Your task to perform on an android device: toggle priority inbox in the gmail app Image 0: 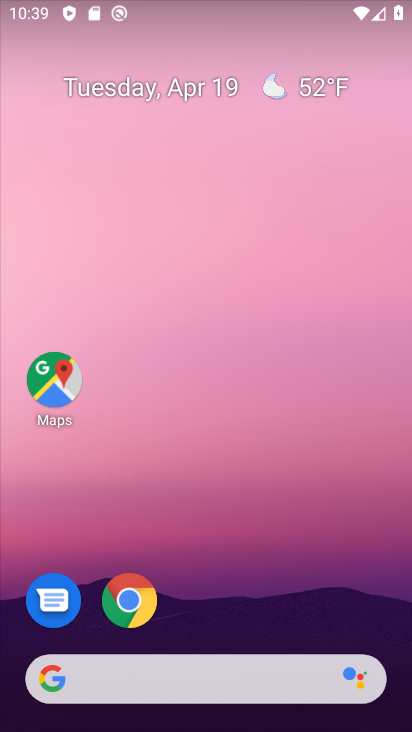
Step 0: drag from (196, 630) to (248, 98)
Your task to perform on an android device: toggle priority inbox in the gmail app Image 1: 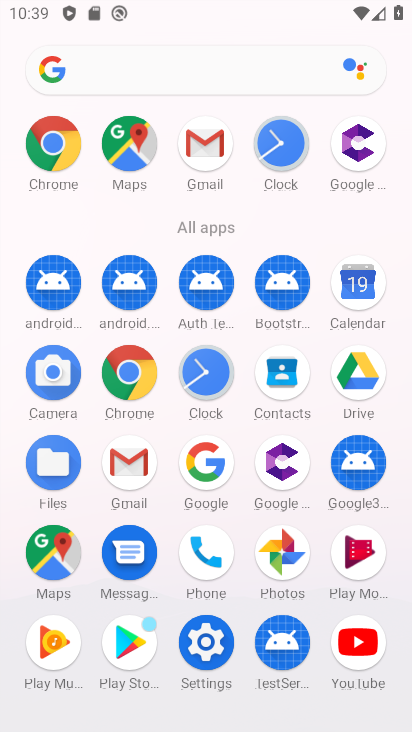
Step 1: click (121, 460)
Your task to perform on an android device: toggle priority inbox in the gmail app Image 2: 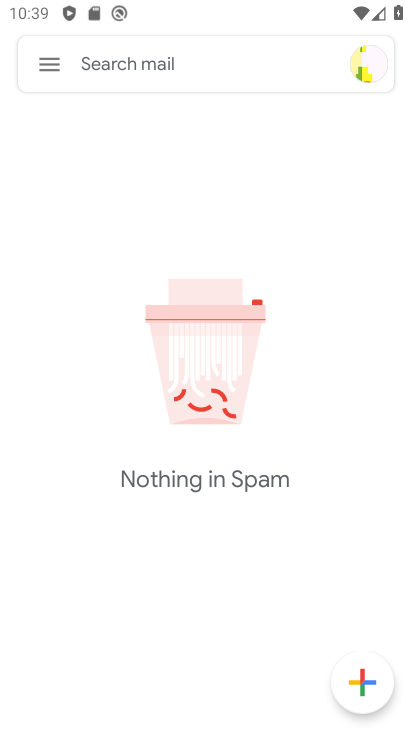
Step 2: click (35, 71)
Your task to perform on an android device: toggle priority inbox in the gmail app Image 3: 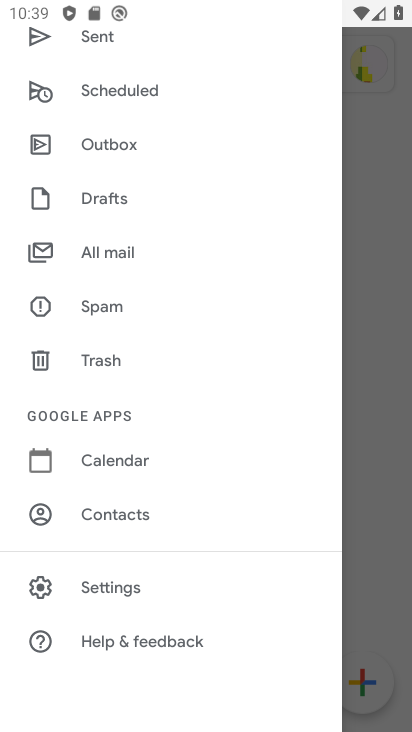
Step 3: click (76, 585)
Your task to perform on an android device: toggle priority inbox in the gmail app Image 4: 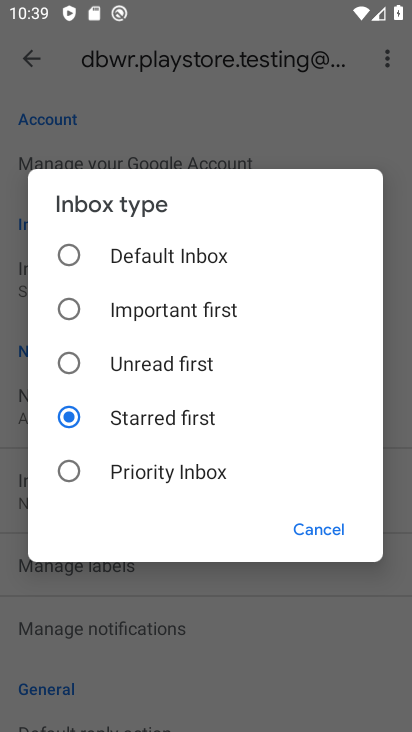
Step 4: click (110, 481)
Your task to perform on an android device: toggle priority inbox in the gmail app Image 5: 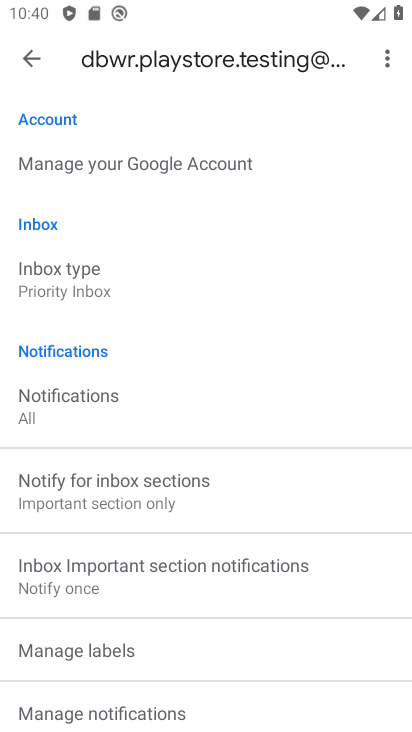
Step 5: task complete